Your task to perform on an android device: toggle priority inbox in the gmail app Image 0: 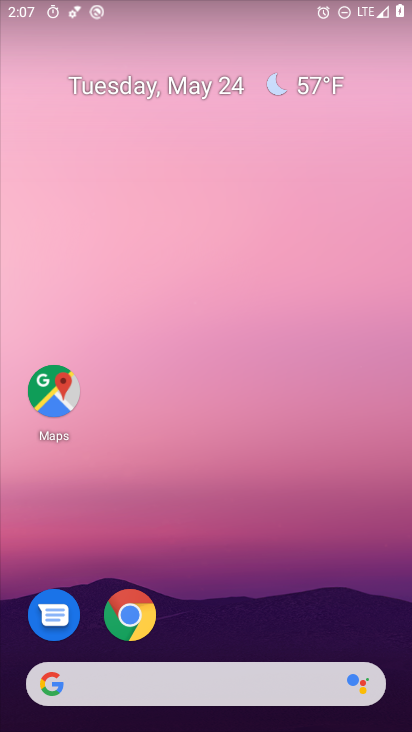
Step 0: drag from (204, 656) to (245, 133)
Your task to perform on an android device: toggle priority inbox in the gmail app Image 1: 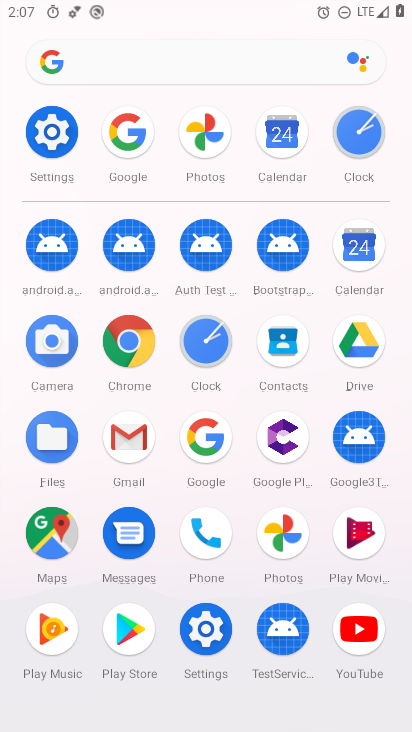
Step 1: click (130, 437)
Your task to perform on an android device: toggle priority inbox in the gmail app Image 2: 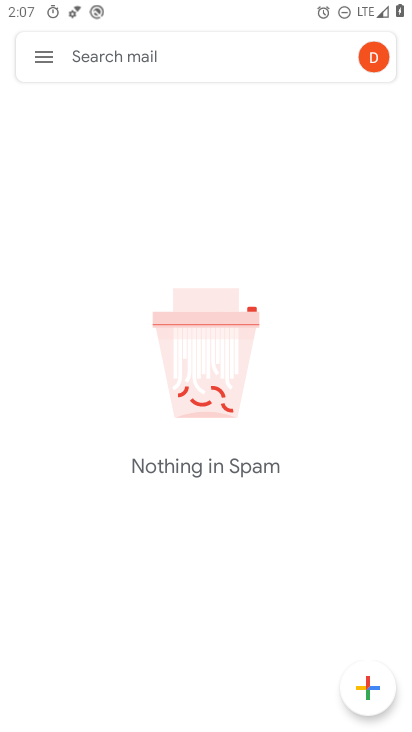
Step 2: click (42, 61)
Your task to perform on an android device: toggle priority inbox in the gmail app Image 3: 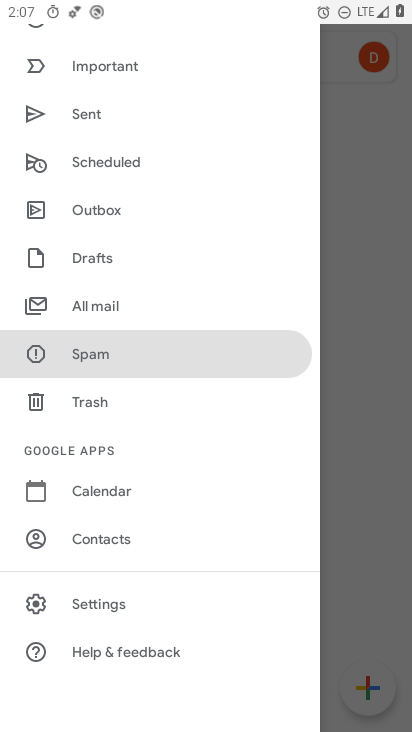
Step 3: click (109, 606)
Your task to perform on an android device: toggle priority inbox in the gmail app Image 4: 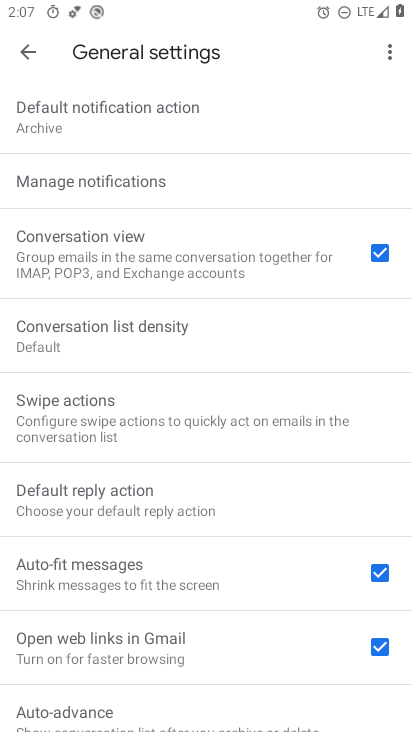
Step 4: click (25, 52)
Your task to perform on an android device: toggle priority inbox in the gmail app Image 5: 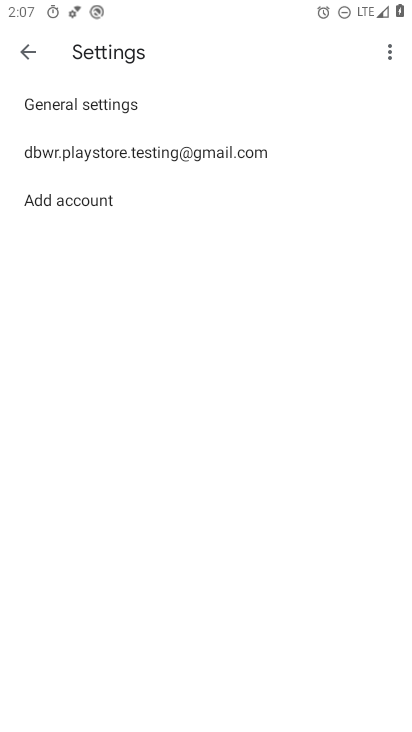
Step 5: click (66, 152)
Your task to perform on an android device: toggle priority inbox in the gmail app Image 6: 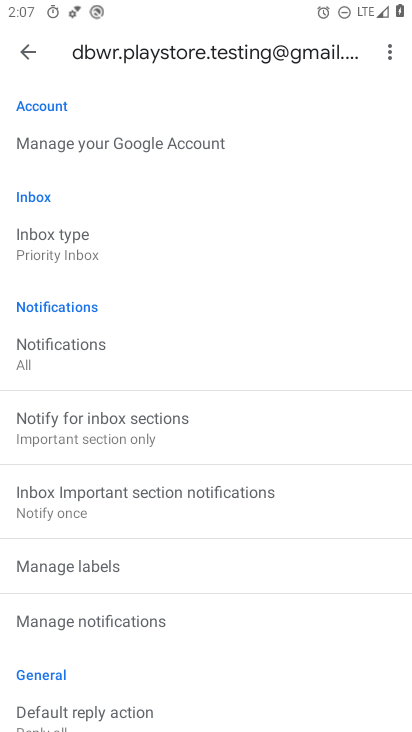
Step 6: click (59, 256)
Your task to perform on an android device: toggle priority inbox in the gmail app Image 7: 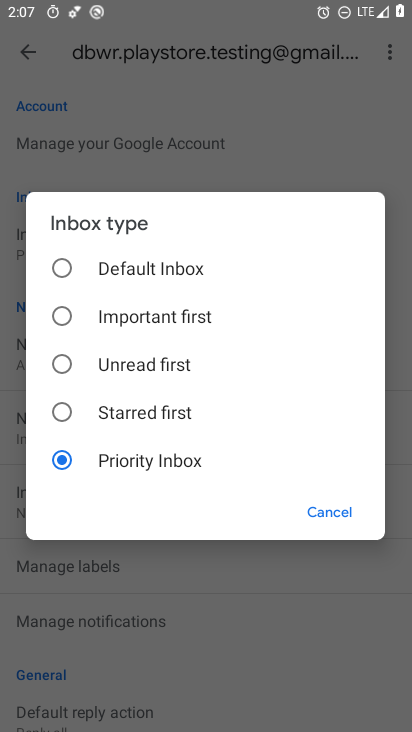
Step 7: click (103, 322)
Your task to perform on an android device: toggle priority inbox in the gmail app Image 8: 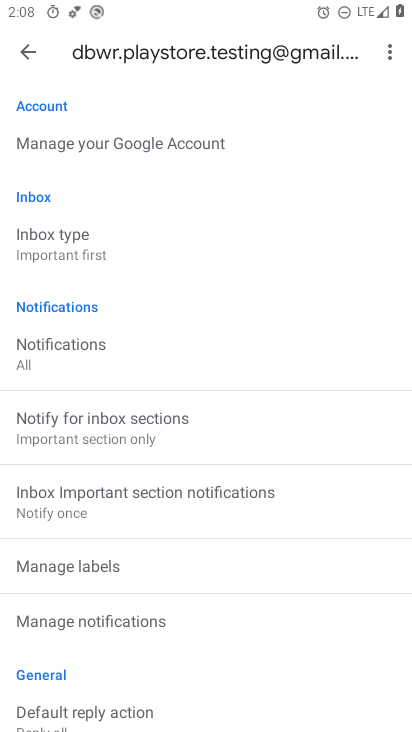
Step 8: task complete